Your task to perform on an android device: install app "TextNow: Call + Text Unlimited" Image 0: 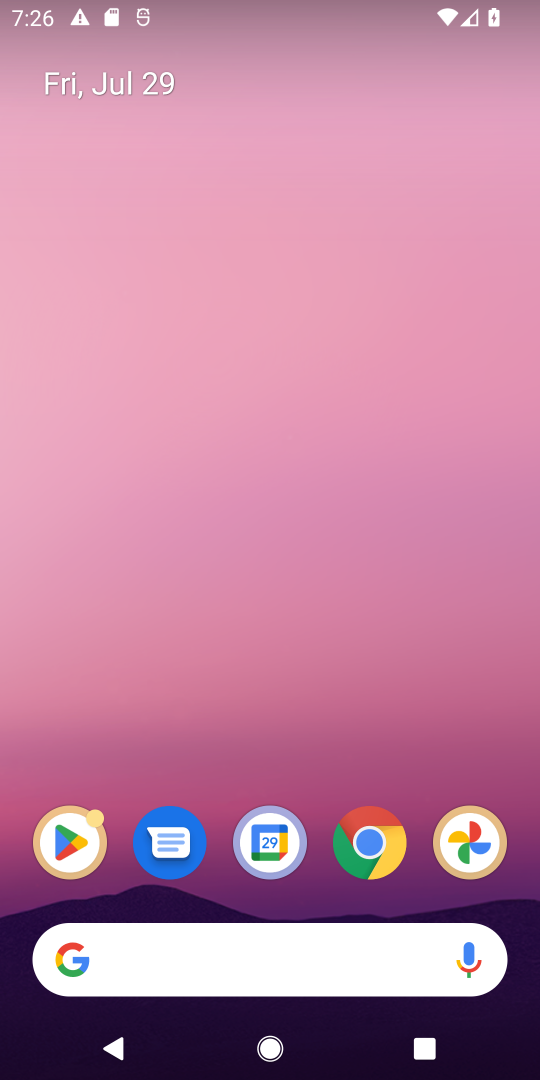
Step 0: drag from (322, 929) to (222, 281)
Your task to perform on an android device: install app "TextNow: Call + Text Unlimited" Image 1: 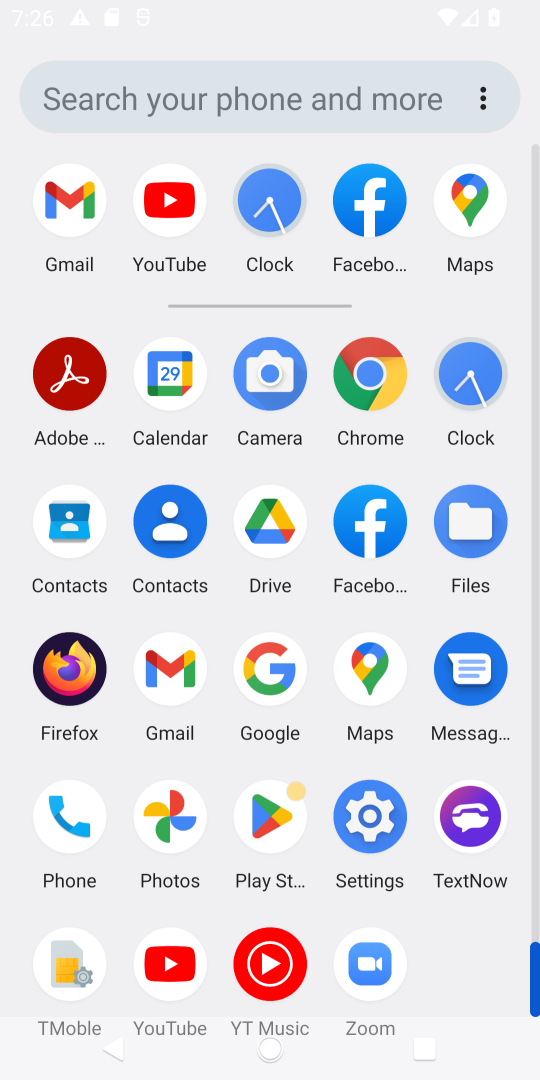
Step 1: click (217, 413)
Your task to perform on an android device: install app "TextNow: Call + Text Unlimited" Image 2: 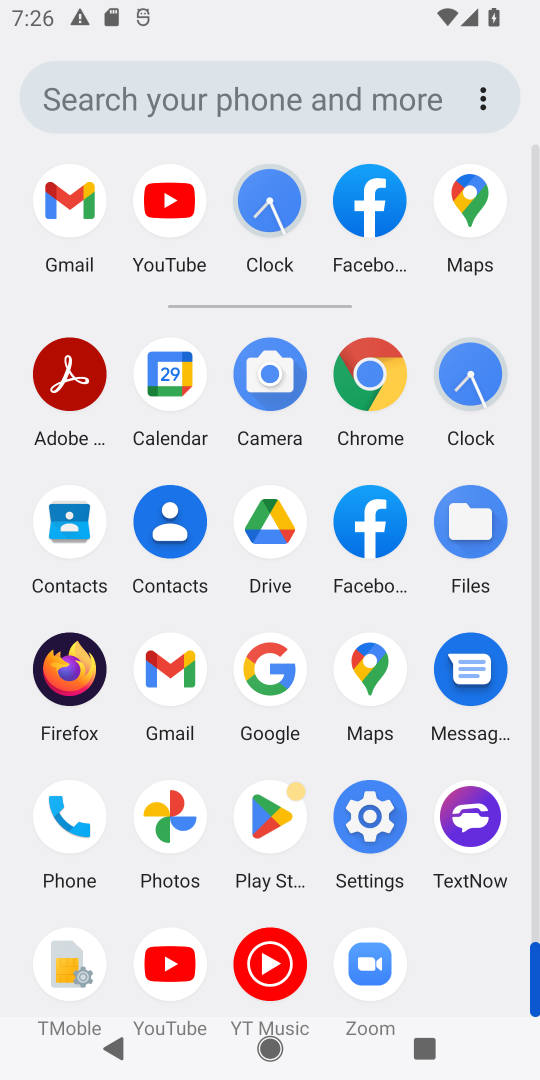
Step 2: click (265, 812)
Your task to perform on an android device: install app "TextNow: Call + Text Unlimited" Image 3: 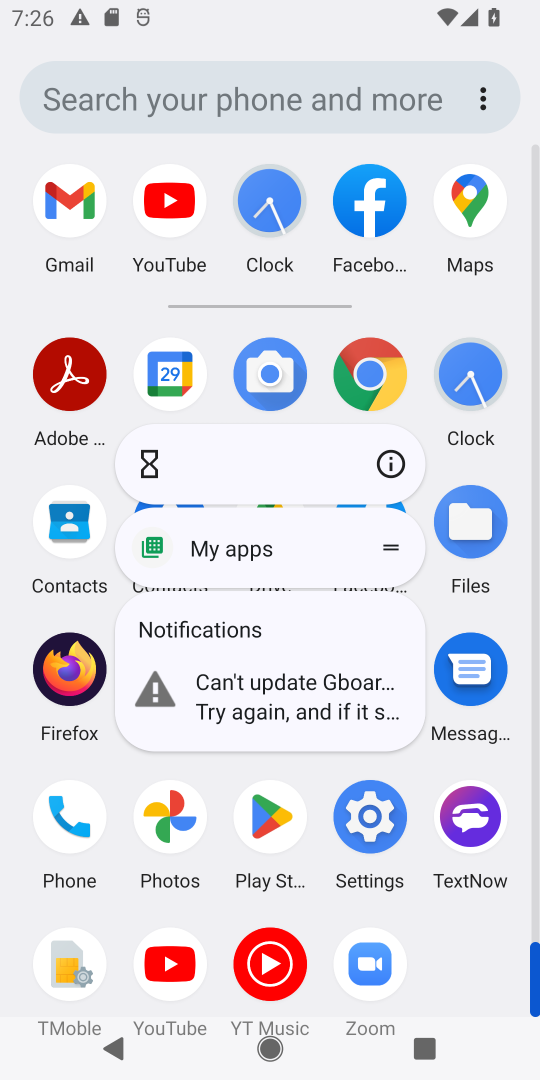
Step 3: click (270, 817)
Your task to perform on an android device: install app "TextNow: Call + Text Unlimited" Image 4: 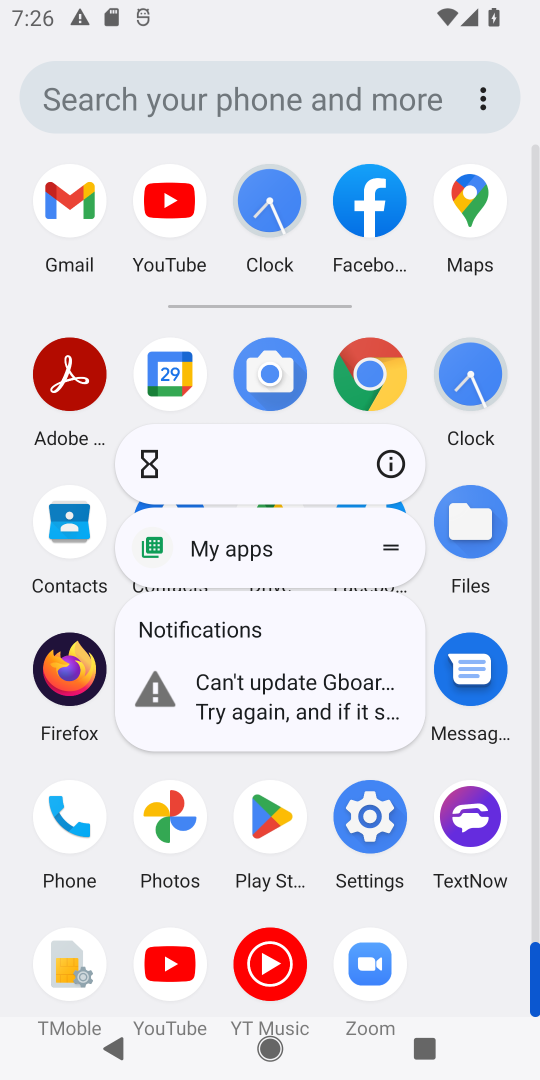
Step 4: click (270, 817)
Your task to perform on an android device: install app "TextNow: Call + Text Unlimited" Image 5: 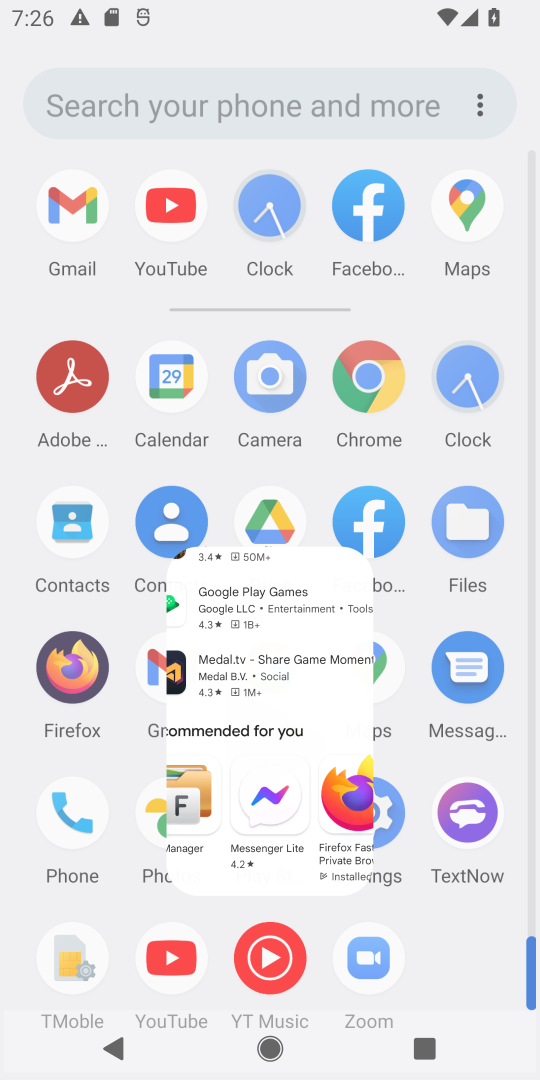
Step 5: click (270, 819)
Your task to perform on an android device: install app "TextNow: Call + Text Unlimited" Image 6: 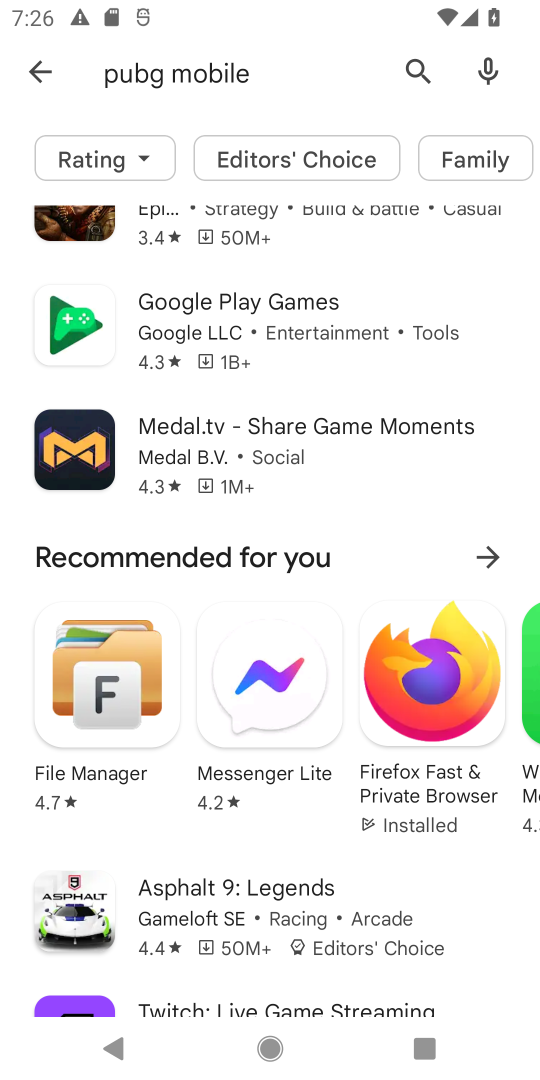
Step 6: click (270, 819)
Your task to perform on an android device: install app "TextNow: Call + Text Unlimited" Image 7: 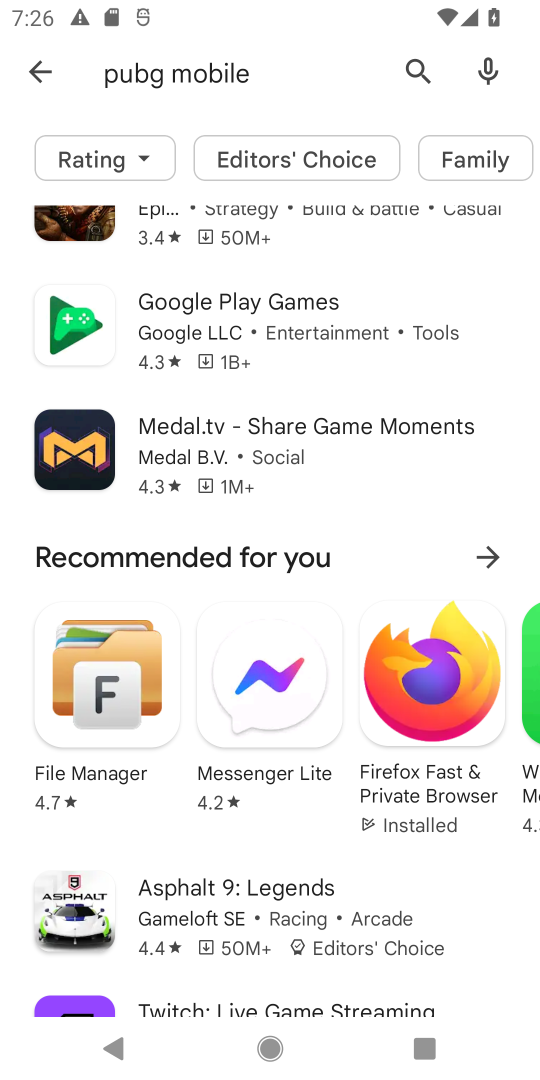
Step 7: click (42, 63)
Your task to perform on an android device: install app "TextNow: Call + Text Unlimited" Image 8: 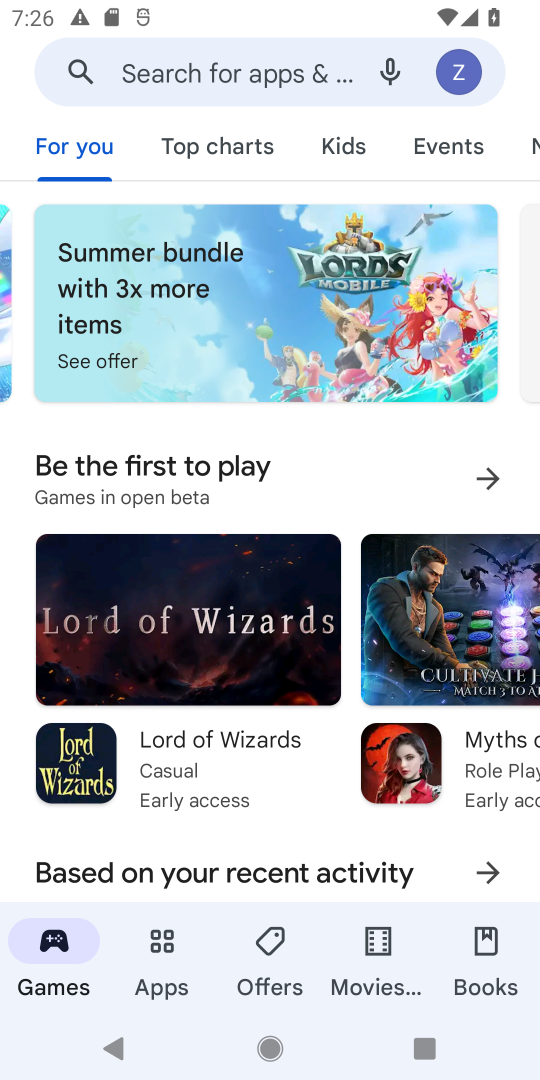
Step 8: click (189, 65)
Your task to perform on an android device: install app "TextNow: Call + Text Unlimited" Image 9: 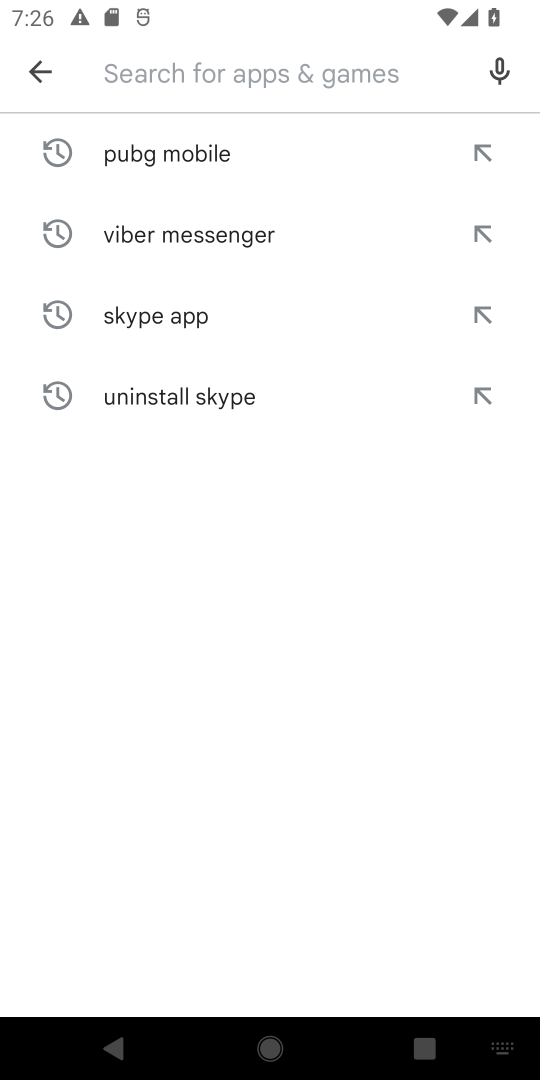
Step 9: click (139, 71)
Your task to perform on an android device: install app "TextNow: Call + Text Unlimited" Image 10: 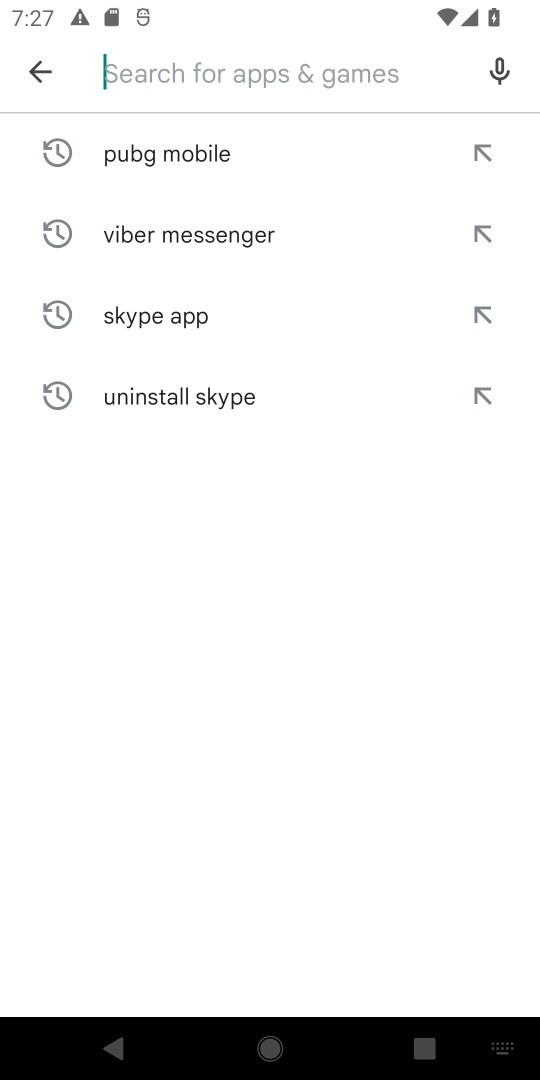
Step 10: type "TextNow: Call + Tex Unlimited"
Your task to perform on an android device: install app "TextNow: Call + Text Unlimited" Image 11: 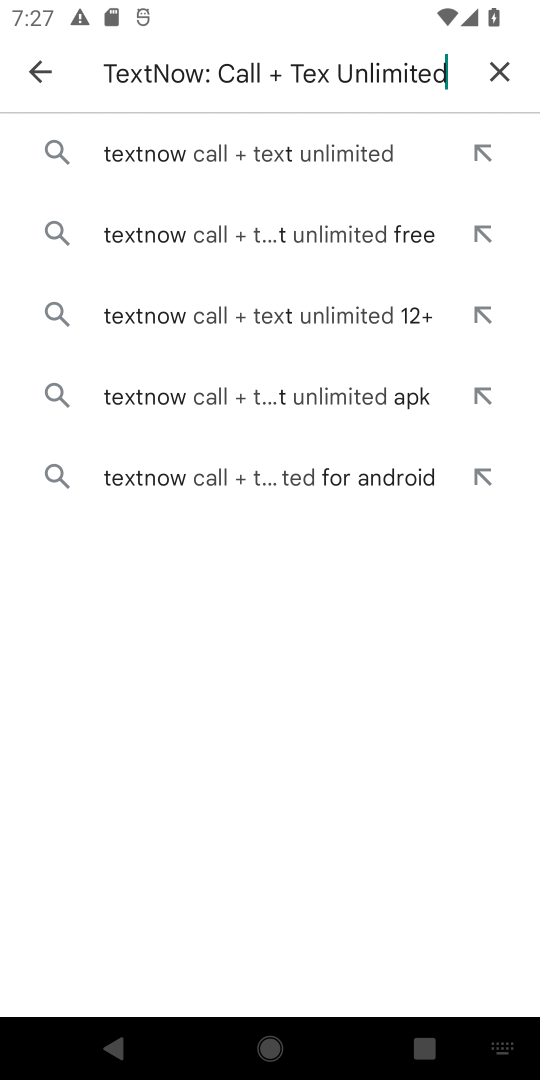
Step 11: click (245, 166)
Your task to perform on an android device: install app "TextNow: Call + Text Unlimited" Image 12: 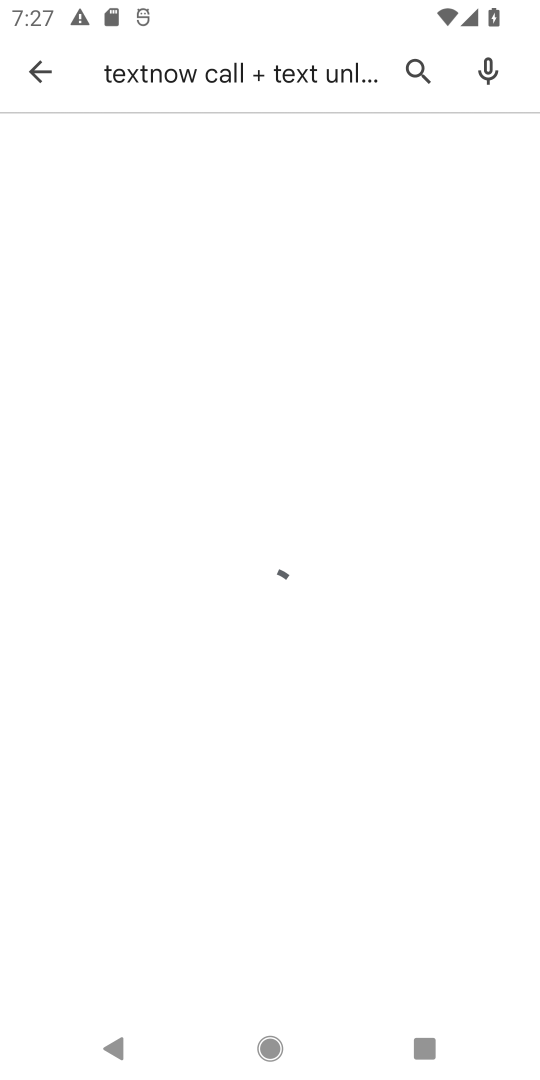
Step 12: click (259, 154)
Your task to perform on an android device: install app "TextNow: Call + Text Unlimited" Image 13: 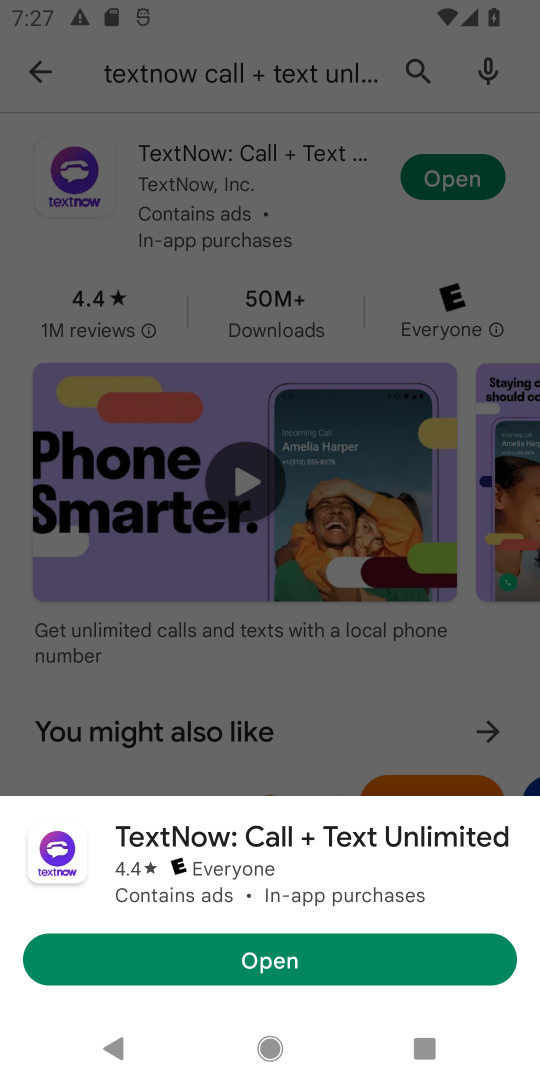
Step 13: click (395, 255)
Your task to perform on an android device: install app "TextNow: Call + Text Unlimited" Image 14: 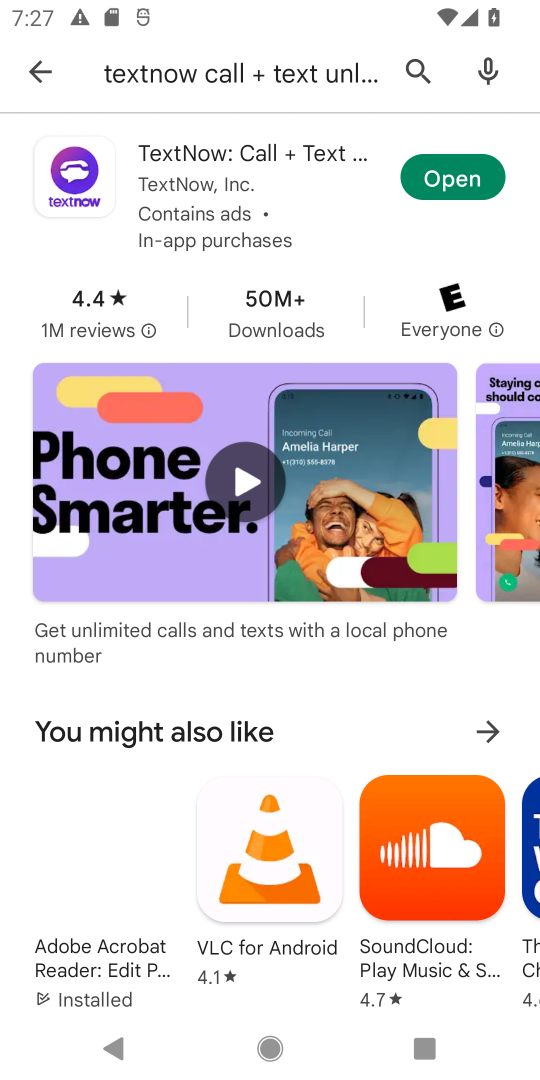
Step 14: click (438, 184)
Your task to perform on an android device: install app "TextNow: Call + Text Unlimited" Image 15: 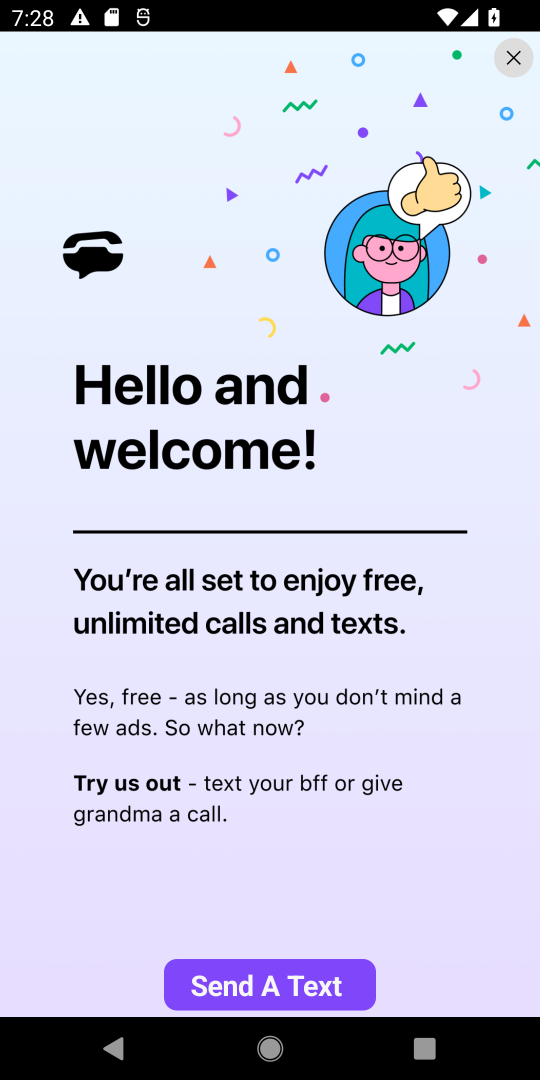
Step 15: click (254, 242)
Your task to perform on an android device: install app "TextNow: Call + Text Unlimited" Image 16: 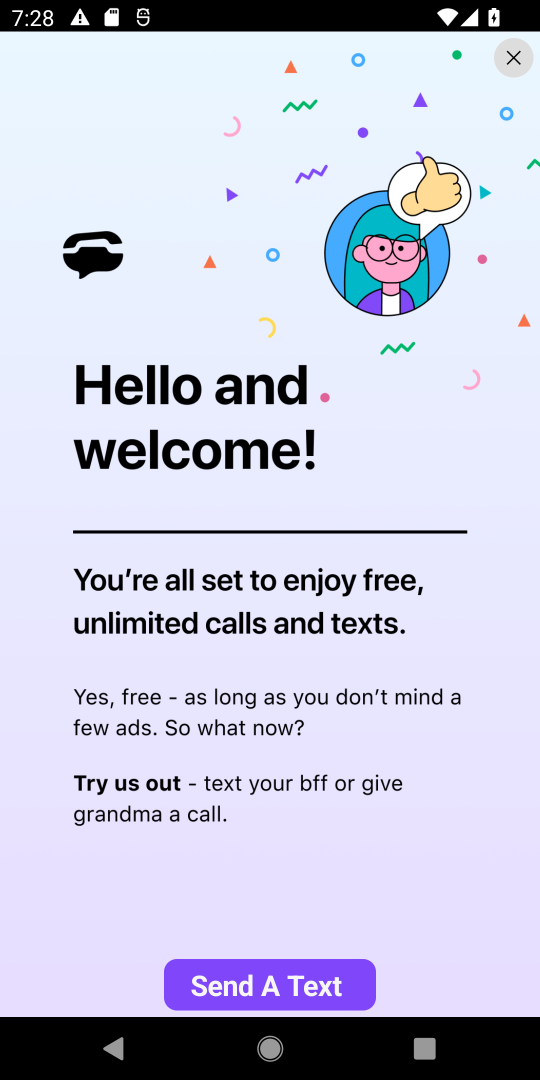
Step 16: drag from (281, 290) to (285, 215)
Your task to perform on an android device: install app "TextNow: Call + Text Unlimited" Image 17: 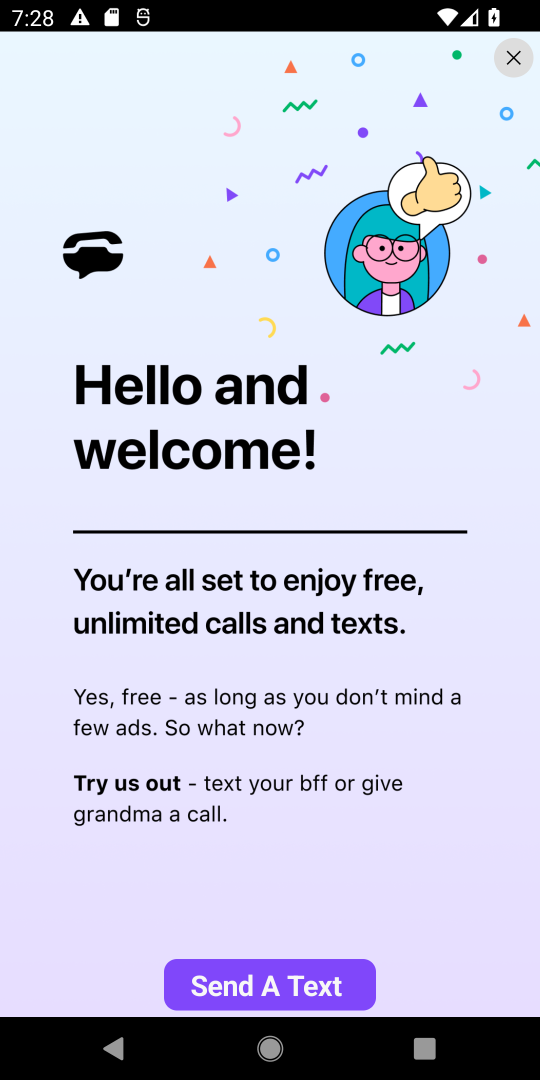
Step 17: click (290, 986)
Your task to perform on an android device: install app "TextNow: Call + Text Unlimited" Image 18: 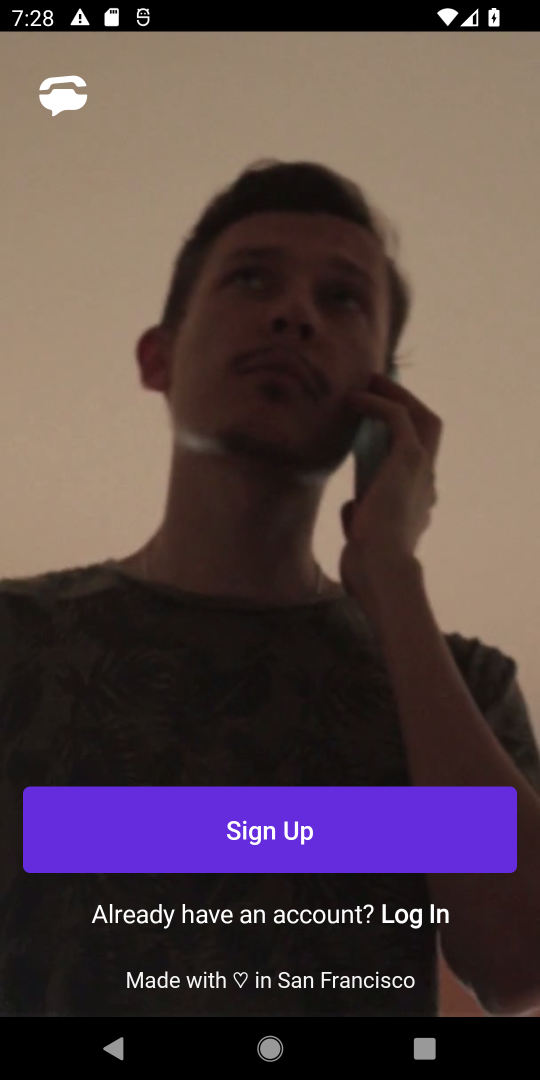
Step 18: click (253, 315)
Your task to perform on an android device: install app "TextNow: Call + Text Unlimited" Image 19: 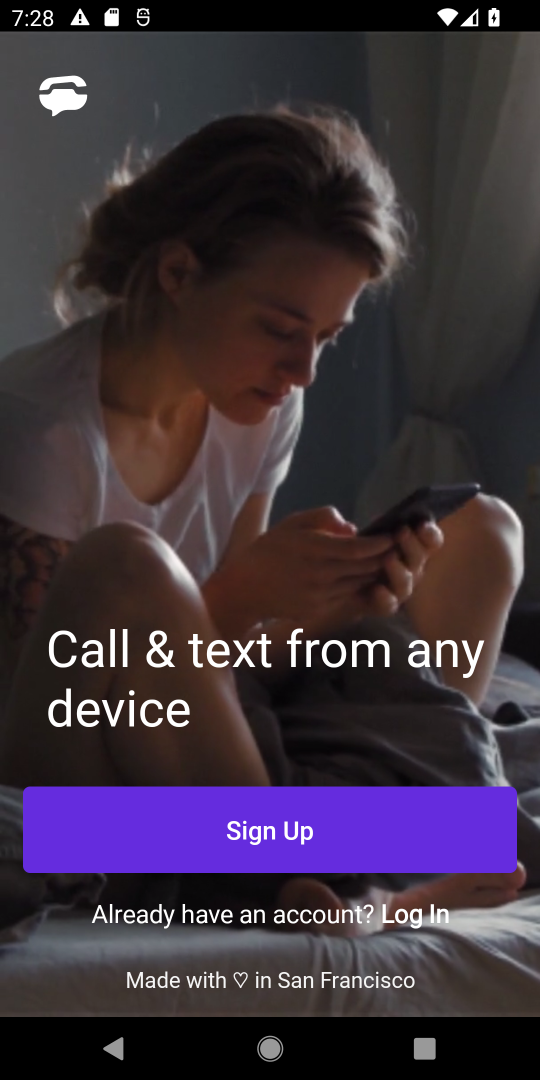
Step 19: click (267, 840)
Your task to perform on an android device: install app "TextNow: Call + Text Unlimited" Image 20: 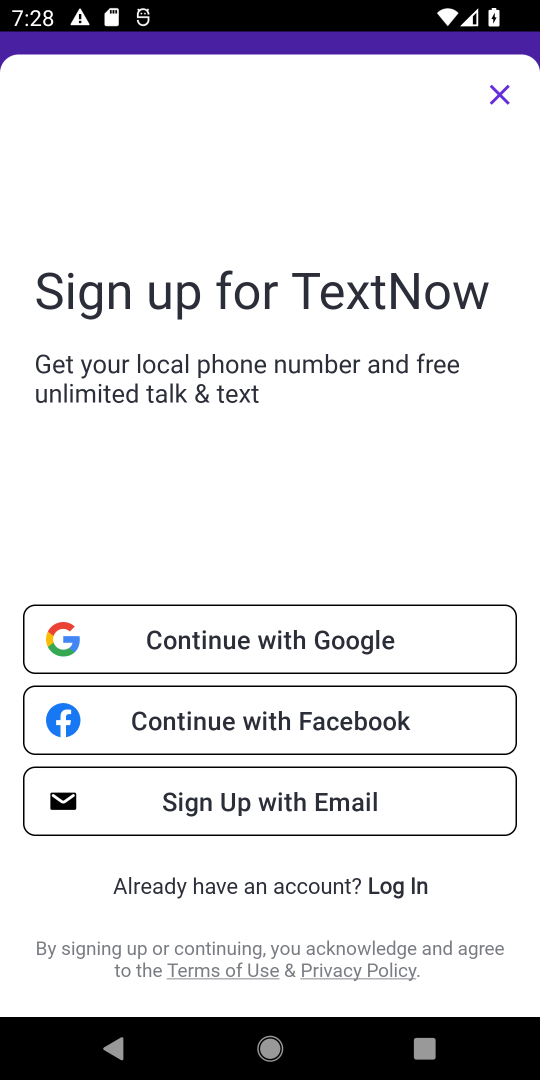
Step 20: click (486, 90)
Your task to perform on an android device: install app "TextNow: Call + Text Unlimited" Image 21: 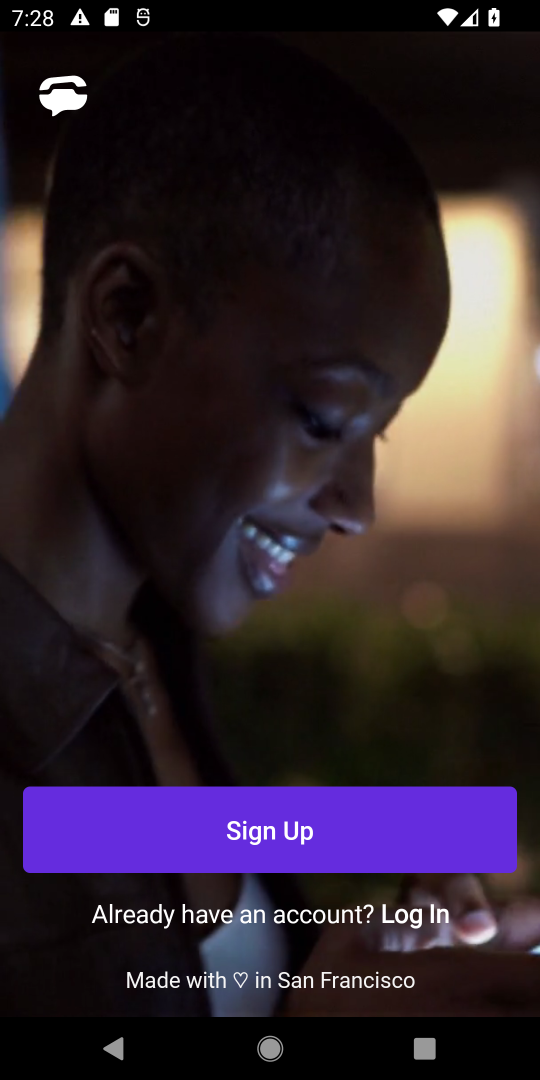
Step 21: click (430, 925)
Your task to perform on an android device: install app "TextNow: Call + Text Unlimited" Image 22: 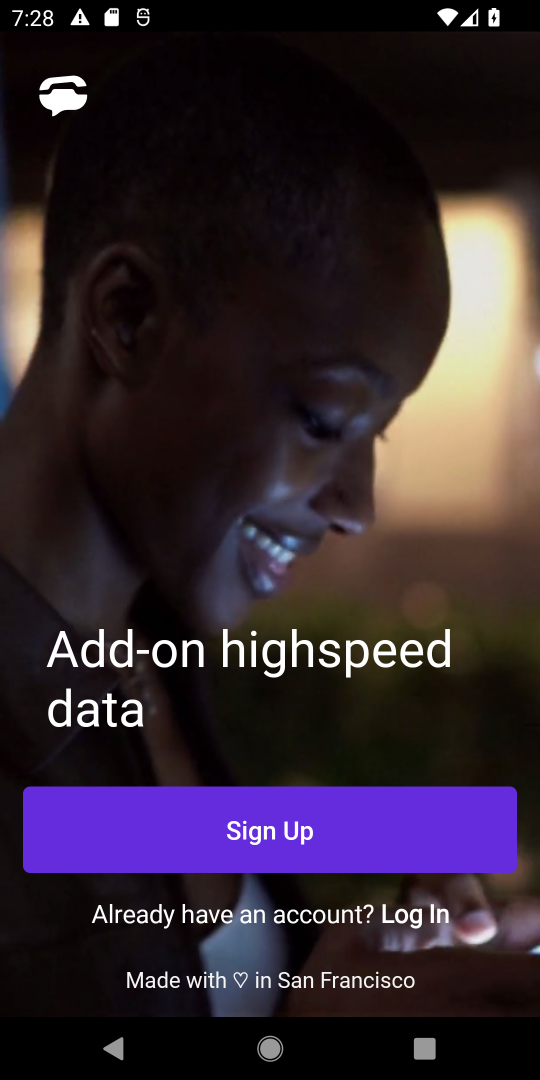
Step 22: task complete